Your task to perform on an android device: Go to settings Image 0: 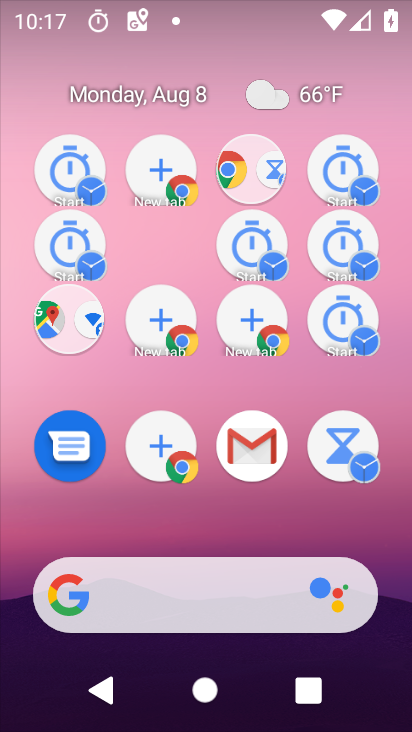
Step 0: press back button
Your task to perform on an android device: Go to settings Image 1: 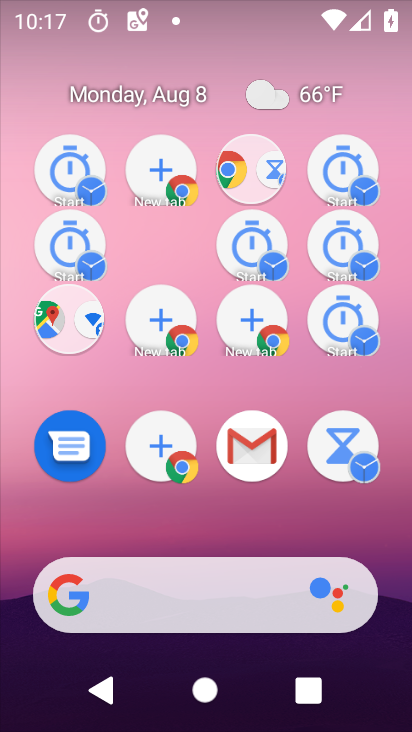
Step 1: drag from (222, 429) to (170, 51)
Your task to perform on an android device: Go to settings Image 2: 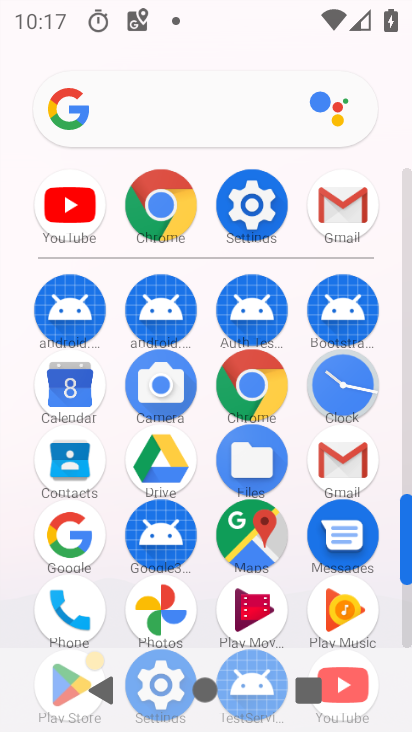
Step 2: click (263, 211)
Your task to perform on an android device: Go to settings Image 3: 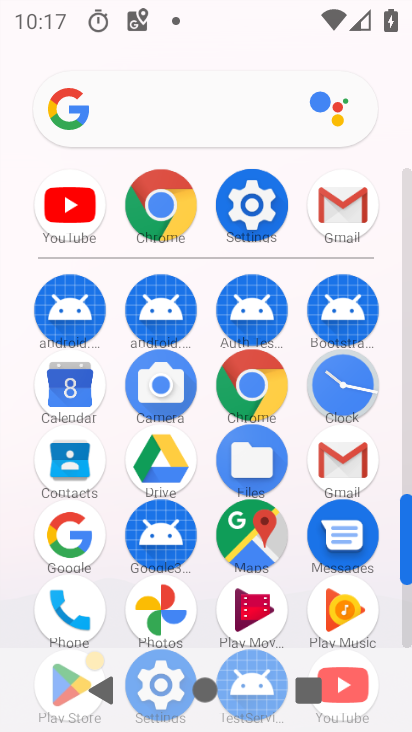
Step 3: click (265, 218)
Your task to perform on an android device: Go to settings Image 4: 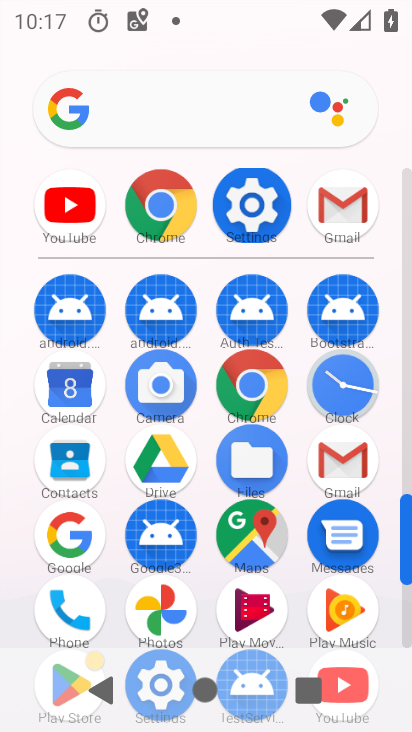
Step 4: click (264, 219)
Your task to perform on an android device: Go to settings Image 5: 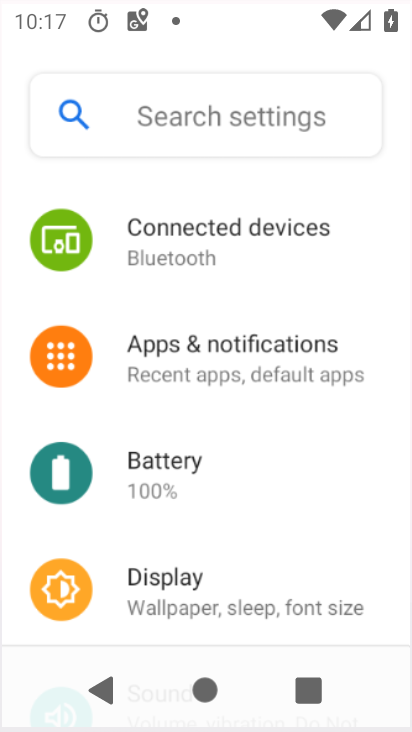
Step 5: click (262, 221)
Your task to perform on an android device: Go to settings Image 6: 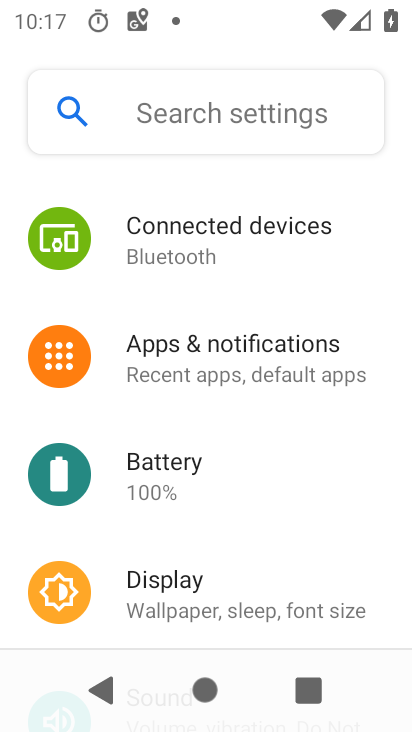
Step 6: click (259, 219)
Your task to perform on an android device: Go to settings Image 7: 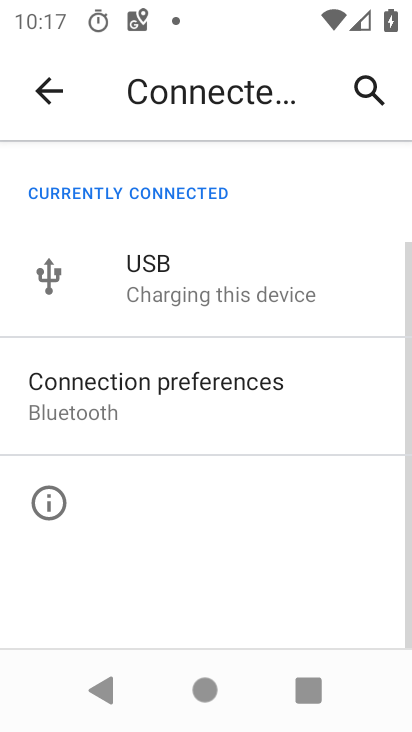
Step 7: click (55, 90)
Your task to perform on an android device: Go to settings Image 8: 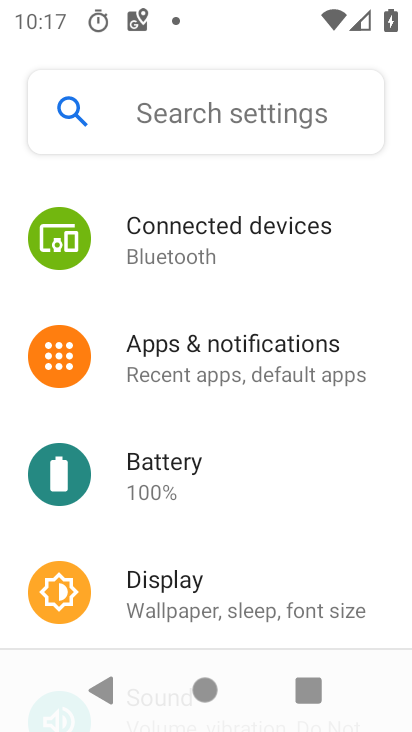
Step 8: task complete